Your task to perform on an android device: Go to notification settings Image 0: 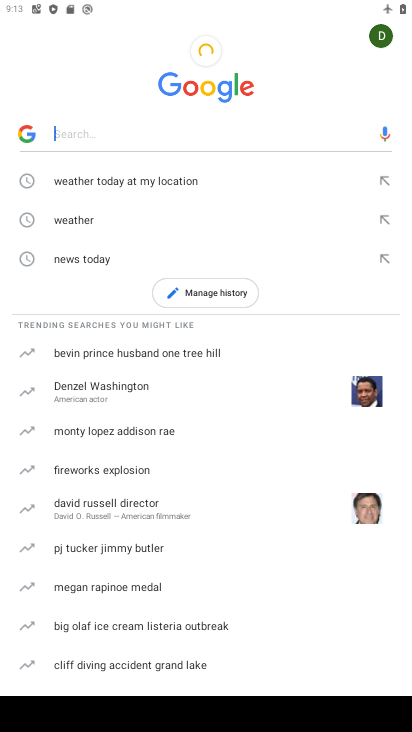
Step 0: press home button
Your task to perform on an android device: Go to notification settings Image 1: 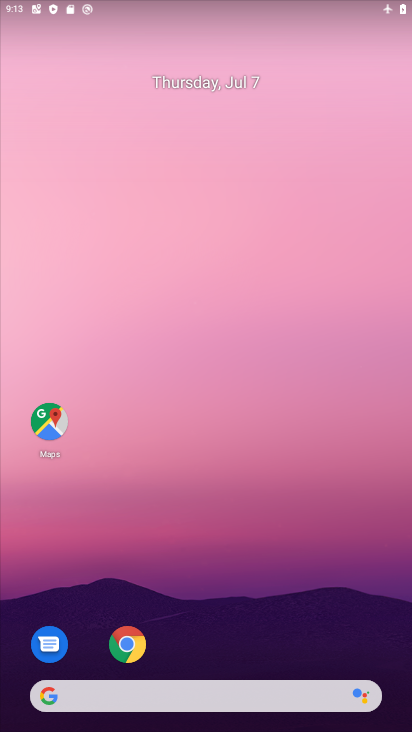
Step 1: drag from (243, 599) to (215, 304)
Your task to perform on an android device: Go to notification settings Image 2: 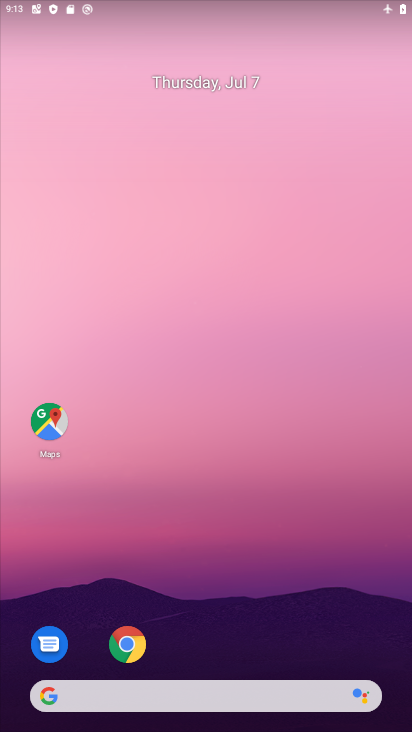
Step 2: drag from (295, 581) to (187, 163)
Your task to perform on an android device: Go to notification settings Image 3: 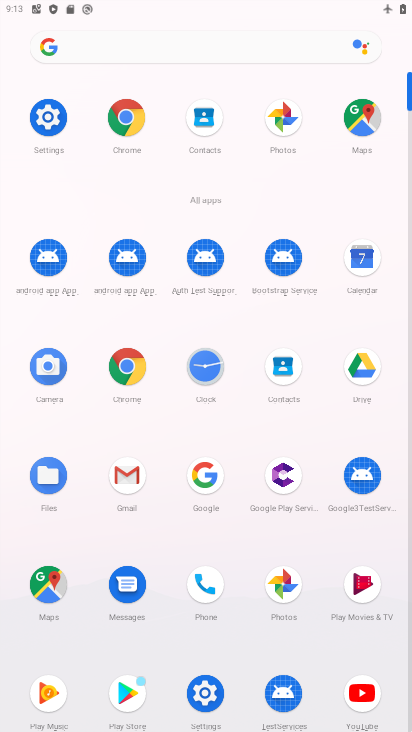
Step 3: click (60, 124)
Your task to perform on an android device: Go to notification settings Image 4: 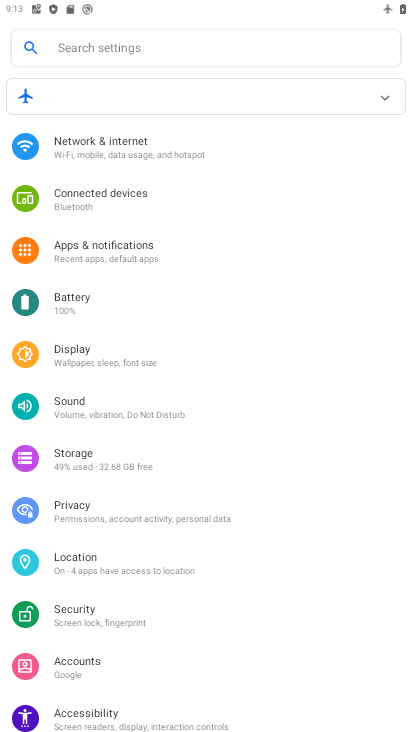
Step 4: click (112, 253)
Your task to perform on an android device: Go to notification settings Image 5: 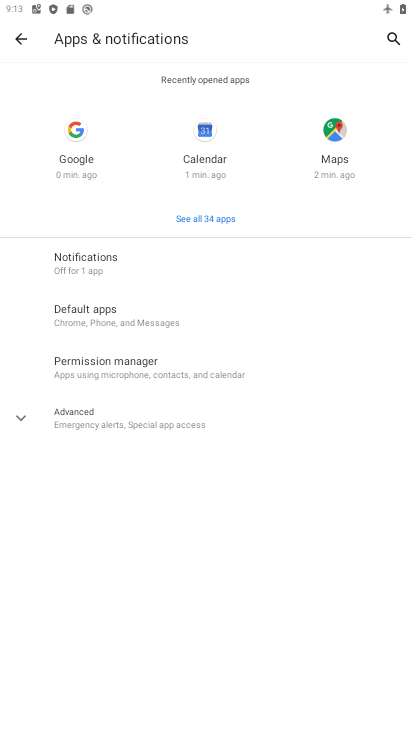
Step 5: click (112, 253)
Your task to perform on an android device: Go to notification settings Image 6: 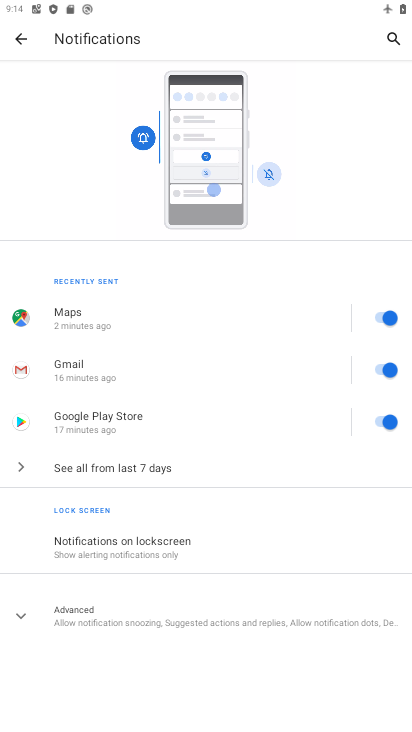
Step 6: task complete